Your task to perform on an android device: toggle improve location accuracy Image 0: 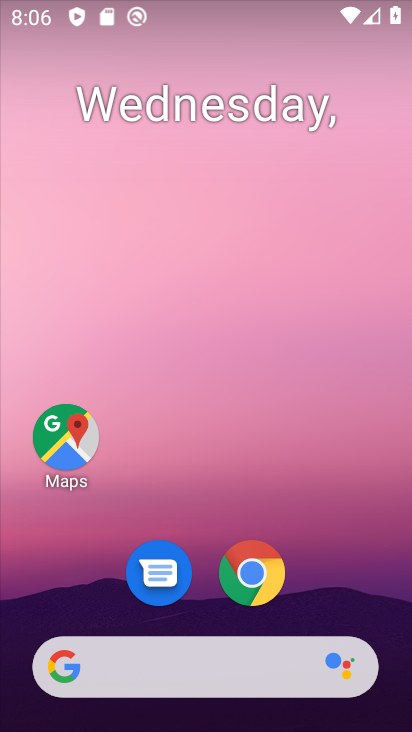
Step 0: drag from (211, 644) to (238, 125)
Your task to perform on an android device: toggle improve location accuracy Image 1: 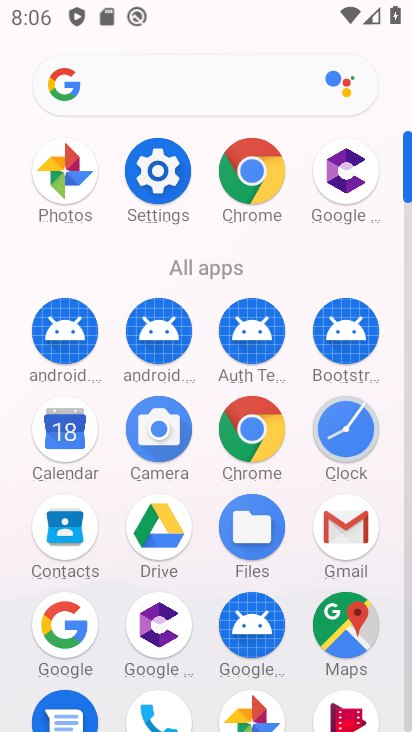
Step 1: click (168, 190)
Your task to perform on an android device: toggle improve location accuracy Image 2: 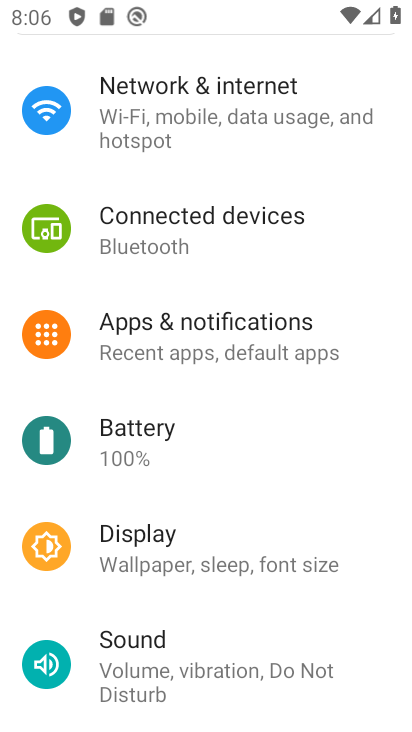
Step 2: drag from (202, 494) to (215, 331)
Your task to perform on an android device: toggle improve location accuracy Image 3: 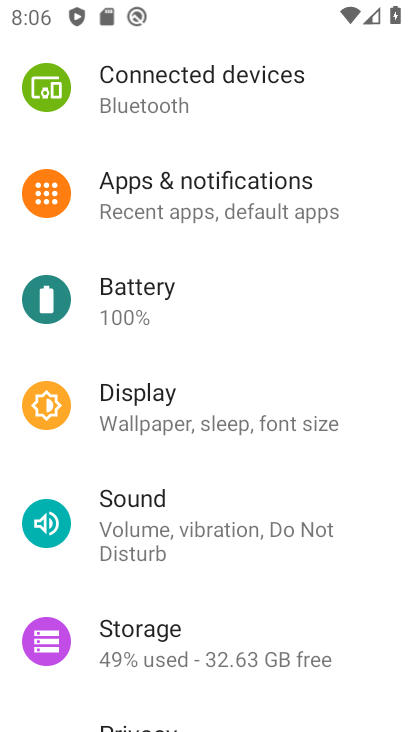
Step 3: drag from (210, 598) to (270, 233)
Your task to perform on an android device: toggle improve location accuracy Image 4: 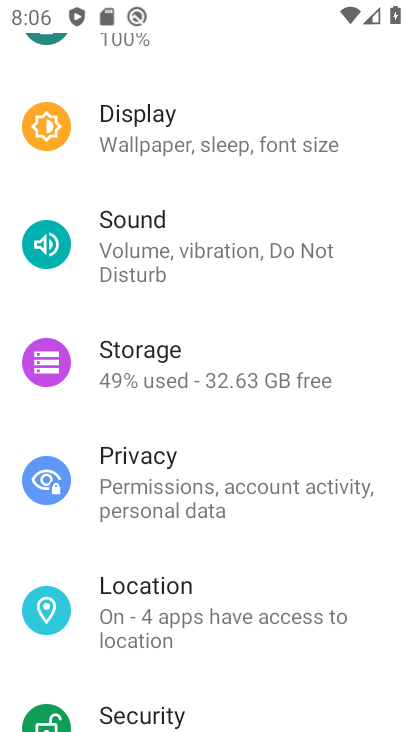
Step 4: click (197, 633)
Your task to perform on an android device: toggle improve location accuracy Image 5: 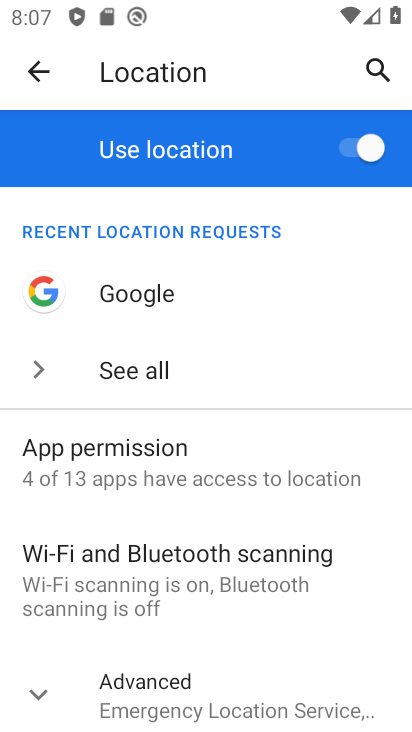
Step 5: click (182, 696)
Your task to perform on an android device: toggle improve location accuracy Image 6: 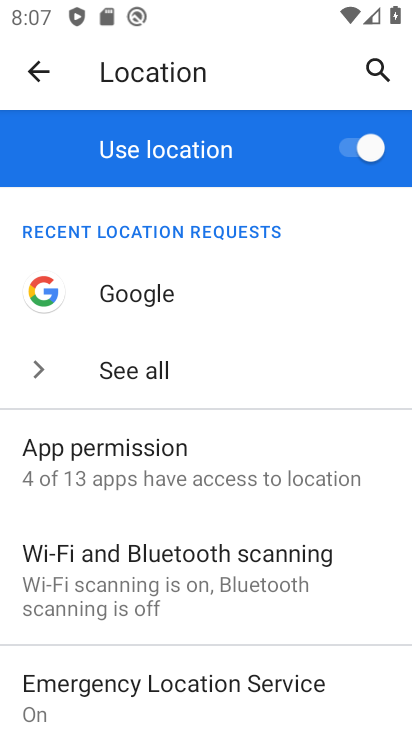
Step 6: drag from (245, 581) to (235, 276)
Your task to perform on an android device: toggle improve location accuracy Image 7: 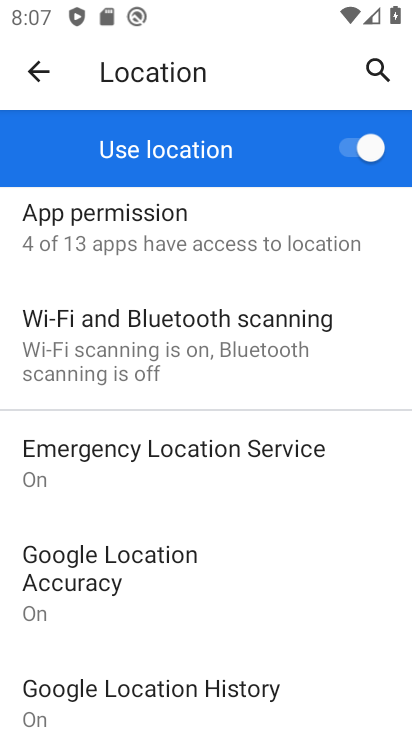
Step 7: click (156, 572)
Your task to perform on an android device: toggle improve location accuracy Image 8: 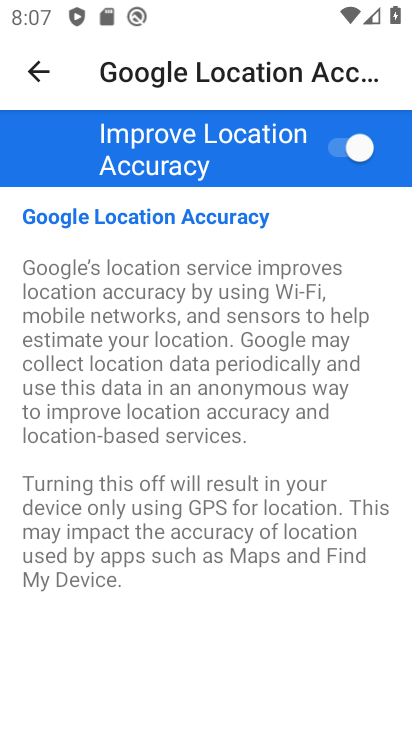
Step 8: click (324, 154)
Your task to perform on an android device: toggle improve location accuracy Image 9: 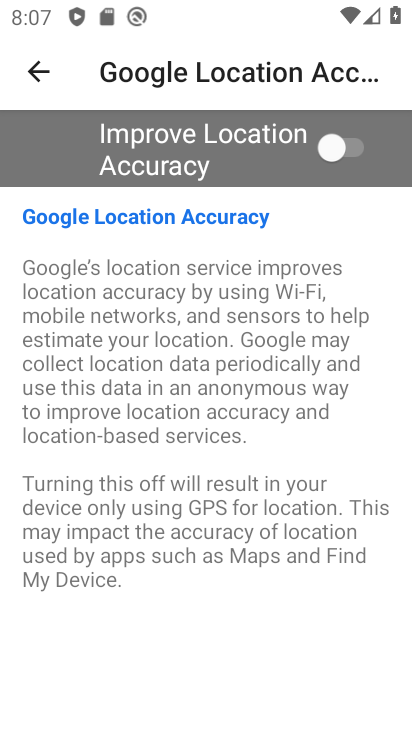
Step 9: task complete